Your task to perform on an android device: toggle airplane mode Image 0: 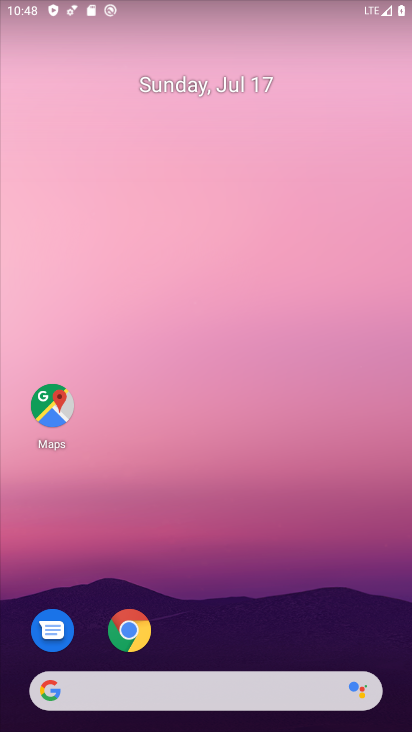
Step 0: drag from (228, 674) to (142, 64)
Your task to perform on an android device: toggle airplane mode Image 1: 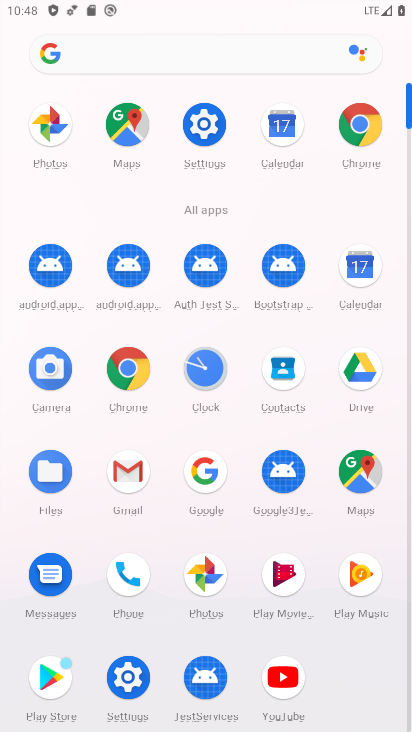
Step 1: click (190, 124)
Your task to perform on an android device: toggle airplane mode Image 2: 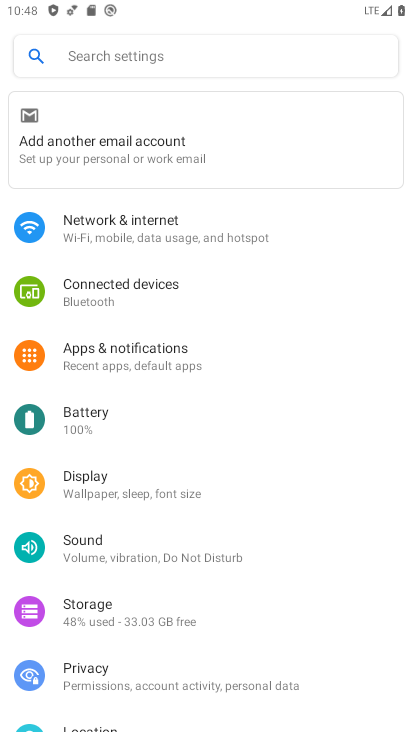
Step 2: click (149, 237)
Your task to perform on an android device: toggle airplane mode Image 3: 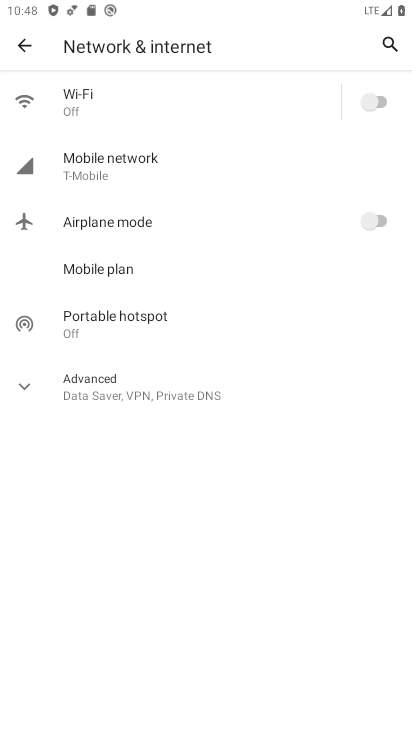
Step 3: click (380, 219)
Your task to perform on an android device: toggle airplane mode Image 4: 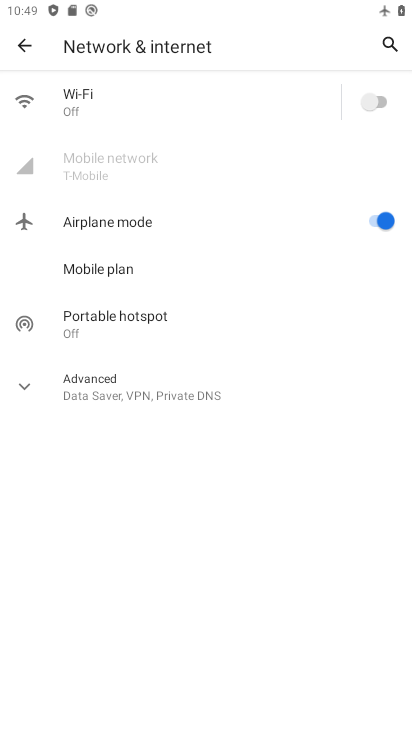
Step 4: task complete